Your task to perform on an android device: turn off airplane mode Image 0: 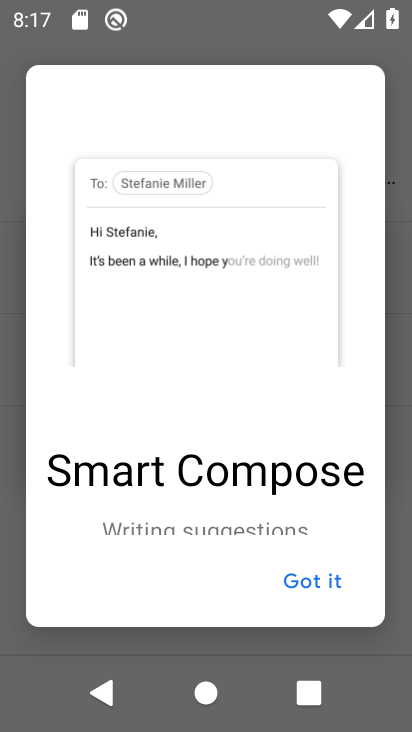
Step 0: press home button
Your task to perform on an android device: turn off airplane mode Image 1: 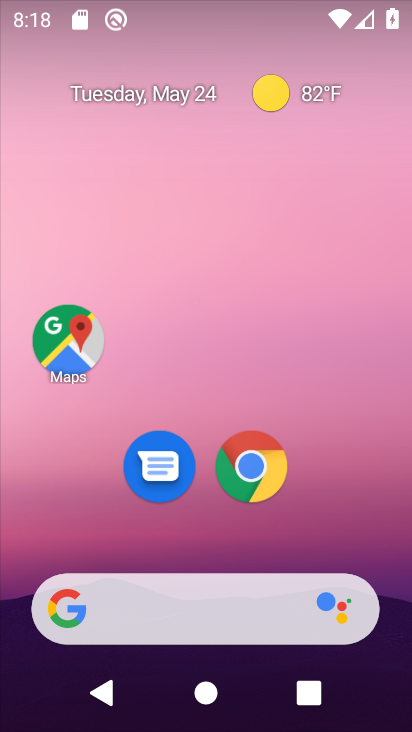
Step 1: drag from (194, 578) to (286, 58)
Your task to perform on an android device: turn off airplane mode Image 2: 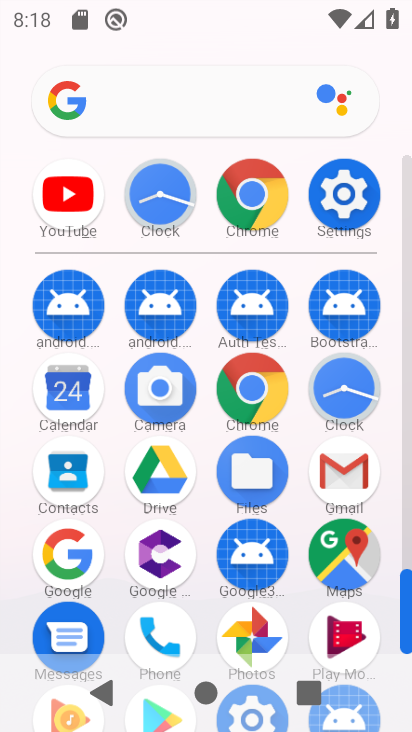
Step 2: click (342, 192)
Your task to perform on an android device: turn off airplane mode Image 3: 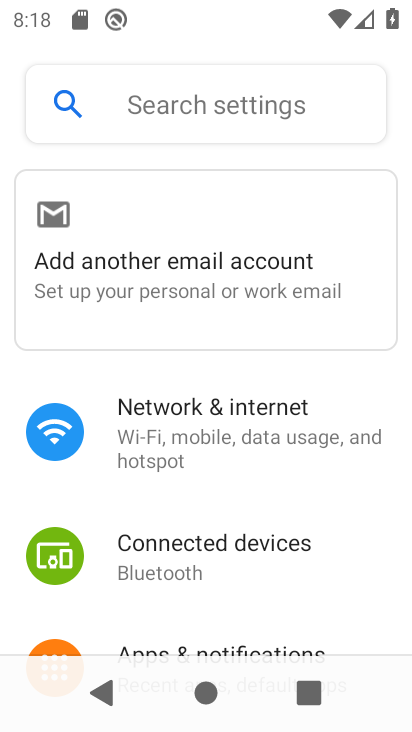
Step 3: click (272, 430)
Your task to perform on an android device: turn off airplane mode Image 4: 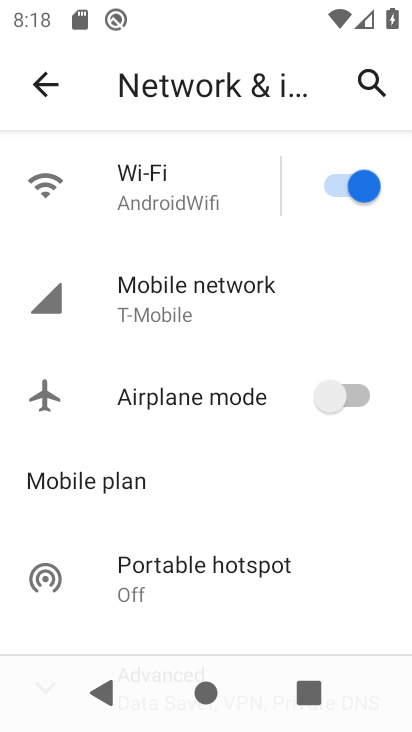
Step 4: task complete